Your task to perform on an android device: toggle javascript in the chrome app Image 0: 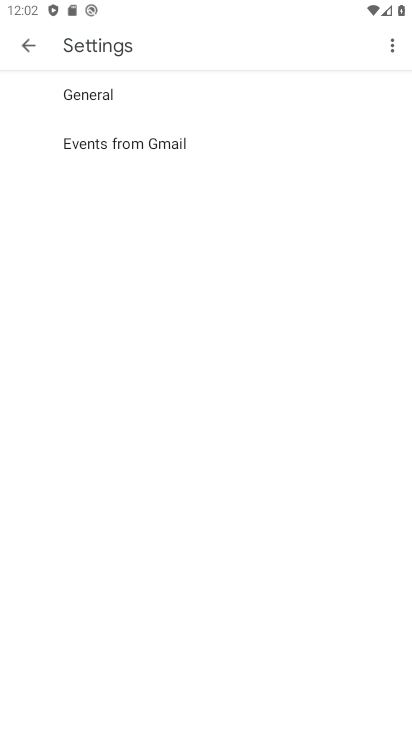
Step 0: press home button
Your task to perform on an android device: toggle javascript in the chrome app Image 1: 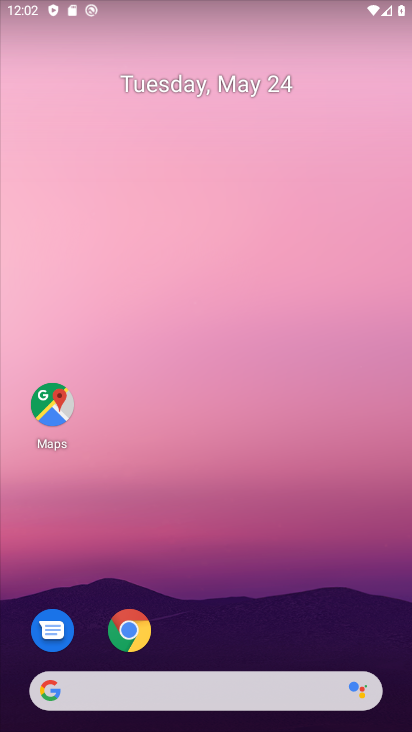
Step 1: click (134, 626)
Your task to perform on an android device: toggle javascript in the chrome app Image 2: 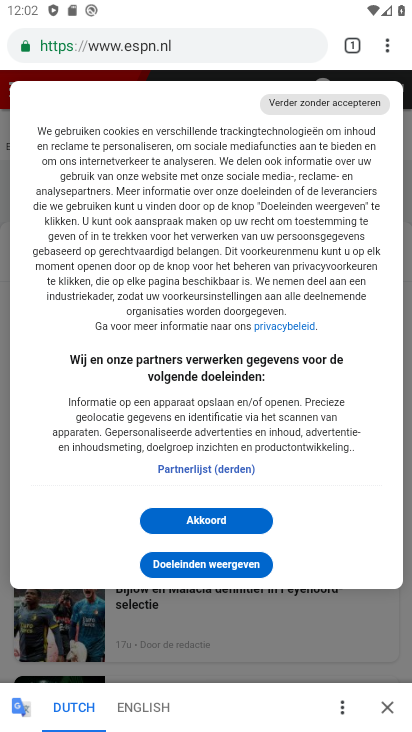
Step 2: click (391, 32)
Your task to perform on an android device: toggle javascript in the chrome app Image 3: 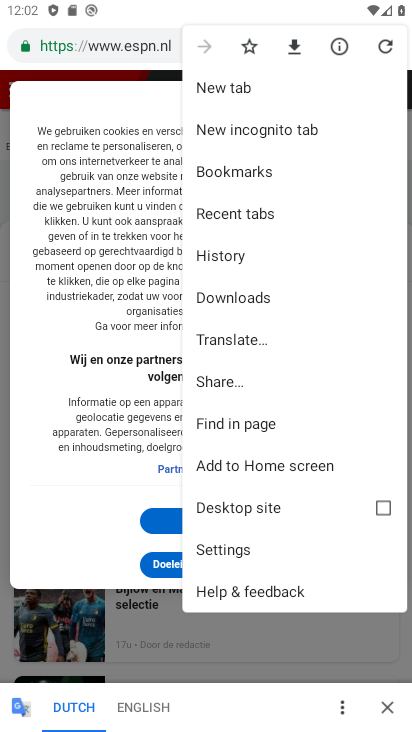
Step 3: click (244, 548)
Your task to perform on an android device: toggle javascript in the chrome app Image 4: 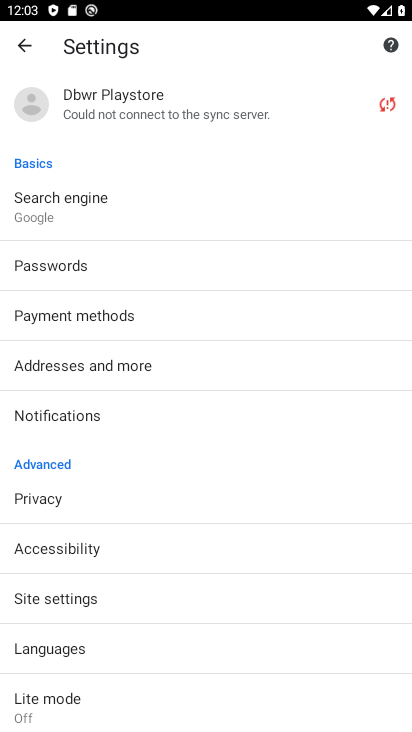
Step 4: click (140, 605)
Your task to perform on an android device: toggle javascript in the chrome app Image 5: 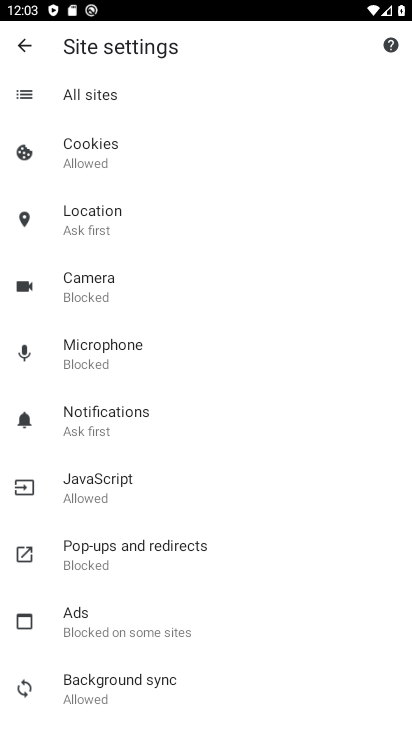
Step 5: click (169, 476)
Your task to perform on an android device: toggle javascript in the chrome app Image 6: 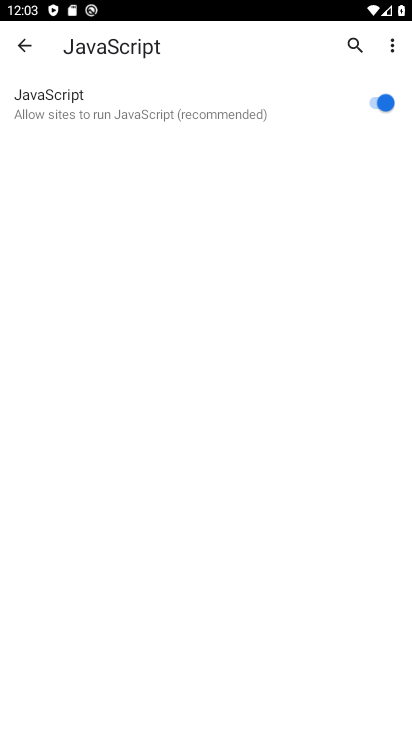
Step 6: click (383, 102)
Your task to perform on an android device: toggle javascript in the chrome app Image 7: 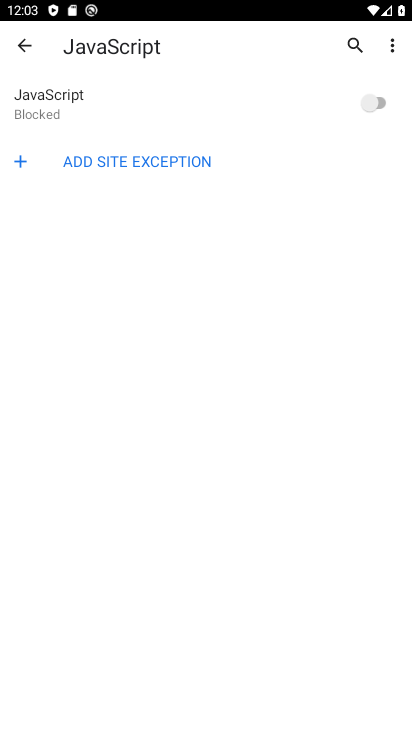
Step 7: task complete